Your task to perform on an android device: Do I have any events tomorrow? Image 0: 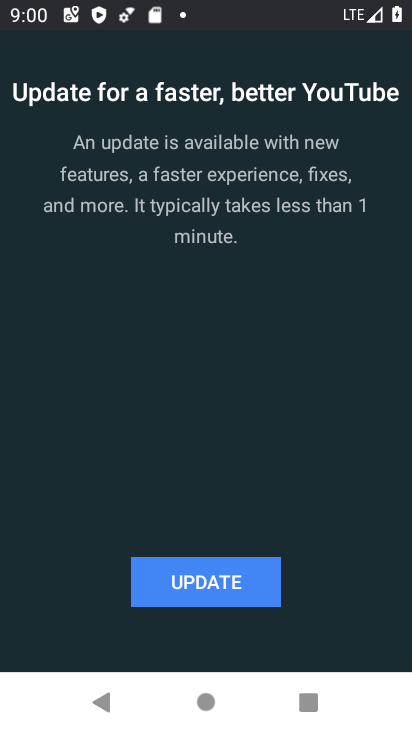
Step 0: press back button
Your task to perform on an android device: Do I have any events tomorrow? Image 1: 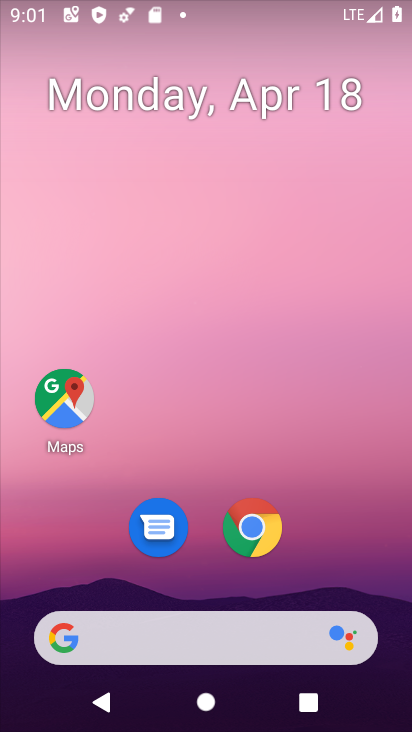
Step 1: drag from (290, 404) to (242, 32)
Your task to perform on an android device: Do I have any events tomorrow? Image 2: 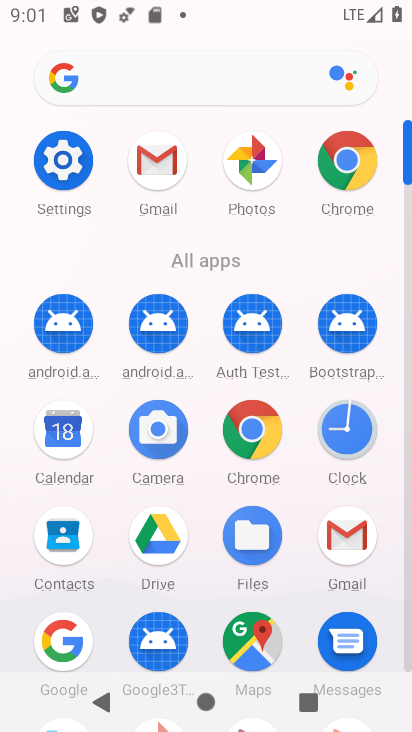
Step 2: click (63, 426)
Your task to perform on an android device: Do I have any events tomorrow? Image 3: 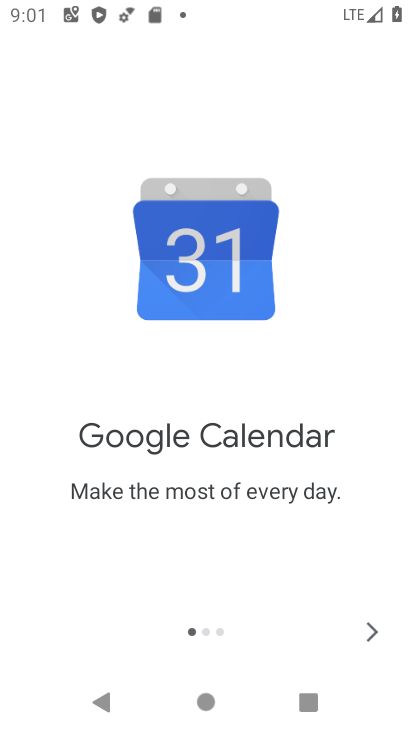
Step 3: click (377, 626)
Your task to perform on an android device: Do I have any events tomorrow? Image 4: 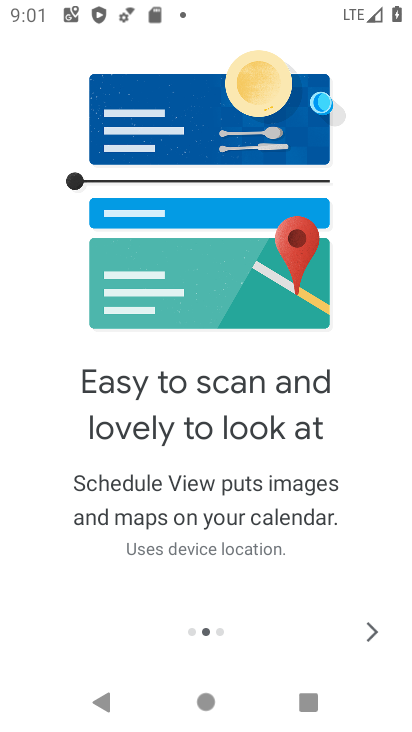
Step 4: click (373, 626)
Your task to perform on an android device: Do I have any events tomorrow? Image 5: 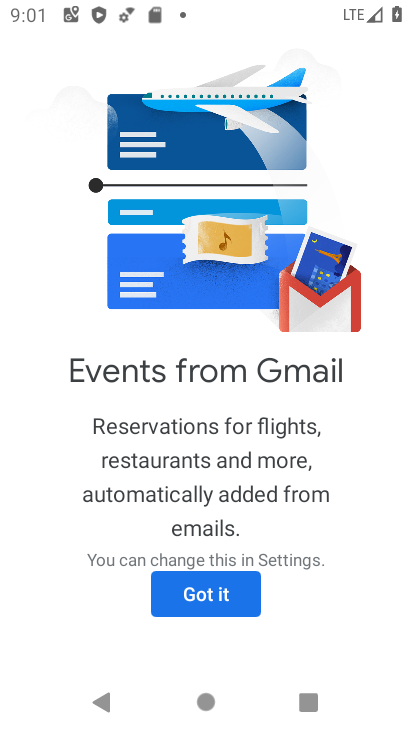
Step 5: click (215, 582)
Your task to perform on an android device: Do I have any events tomorrow? Image 6: 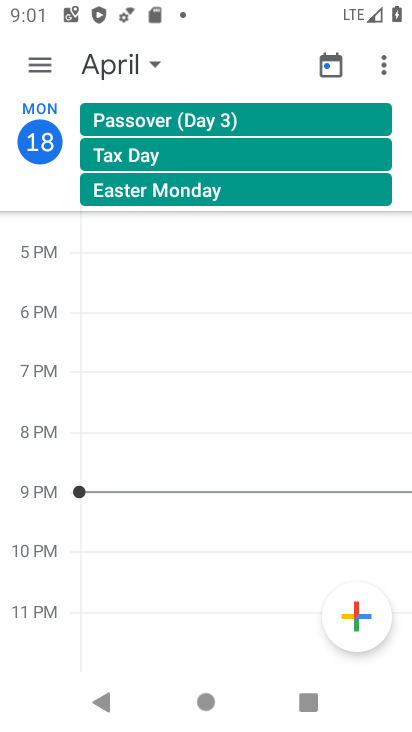
Step 6: task complete